Your task to perform on an android device: toggle javascript in the chrome app Image 0: 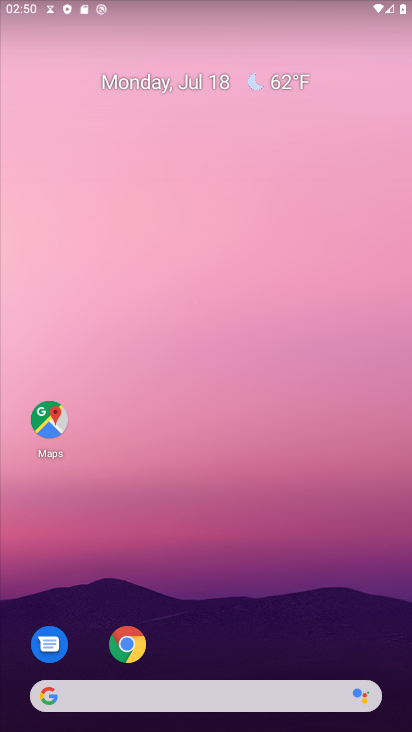
Step 0: drag from (219, 599) to (190, 441)
Your task to perform on an android device: toggle javascript in the chrome app Image 1: 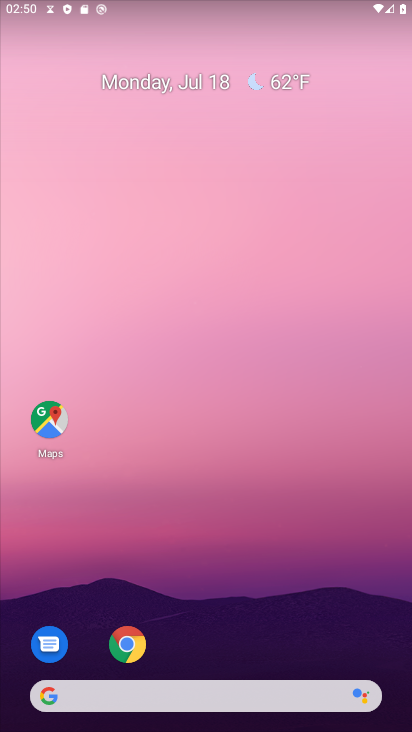
Step 1: drag from (219, 608) to (202, 315)
Your task to perform on an android device: toggle javascript in the chrome app Image 2: 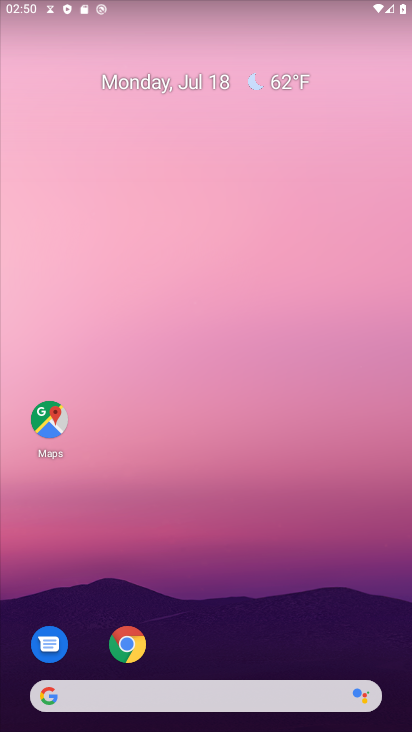
Step 2: drag from (292, 601) to (270, 222)
Your task to perform on an android device: toggle javascript in the chrome app Image 3: 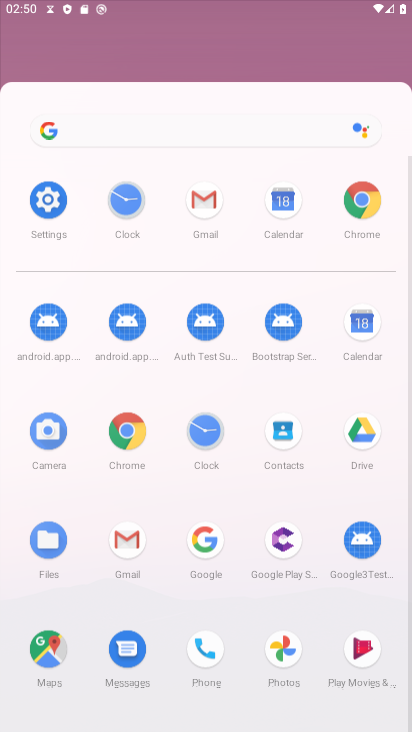
Step 3: drag from (194, 522) to (193, 226)
Your task to perform on an android device: toggle javascript in the chrome app Image 4: 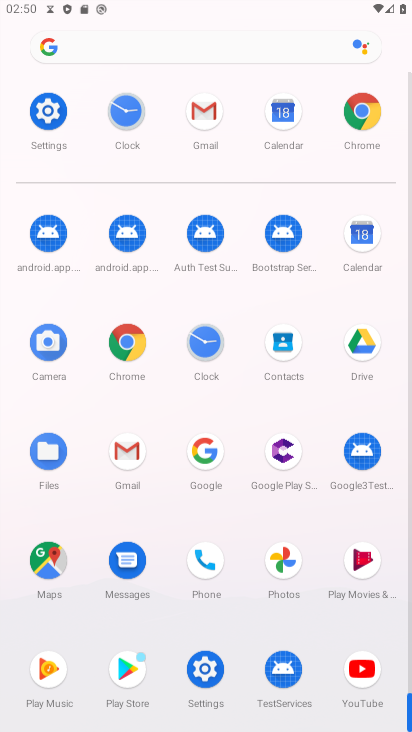
Step 4: drag from (210, 576) to (262, 213)
Your task to perform on an android device: toggle javascript in the chrome app Image 5: 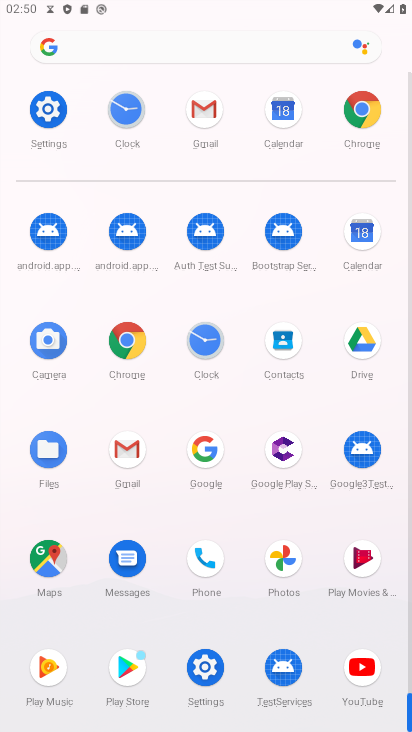
Step 5: click (339, 102)
Your task to perform on an android device: toggle javascript in the chrome app Image 6: 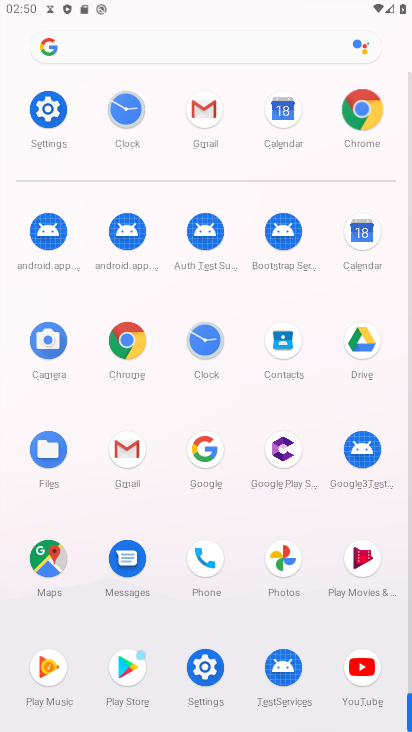
Step 6: click (343, 102)
Your task to perform on an android device: toggle javascript in the chrome app Image 7: 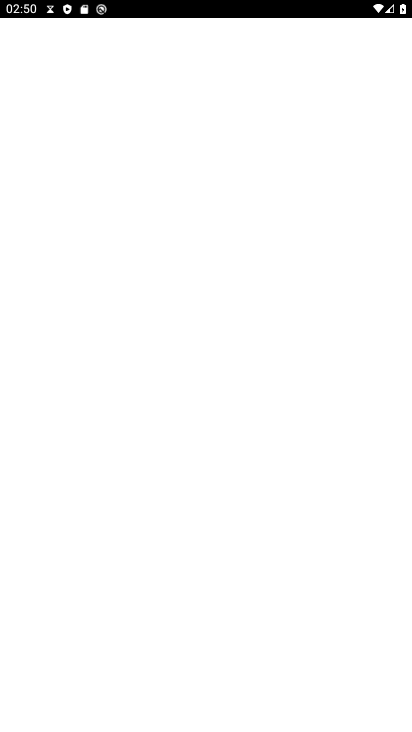
Step 7: click (345, 104)
Your task to perform on an android device: toggle javascript in the chrome app Image 8: 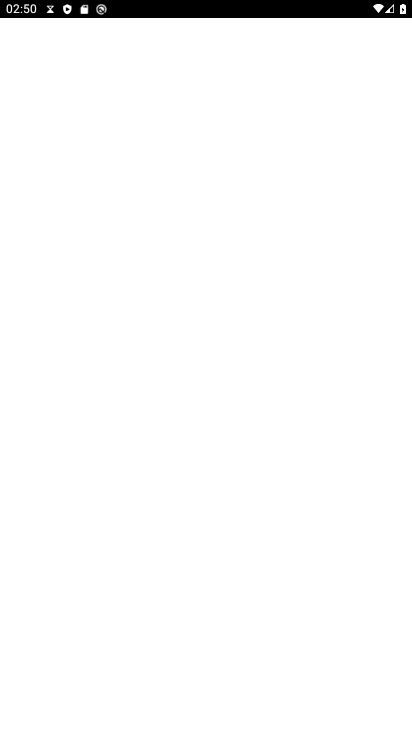
Step 8: click (346, 106)
Your task to perform on an android device: toggle javascript in the chrome app Image 9: 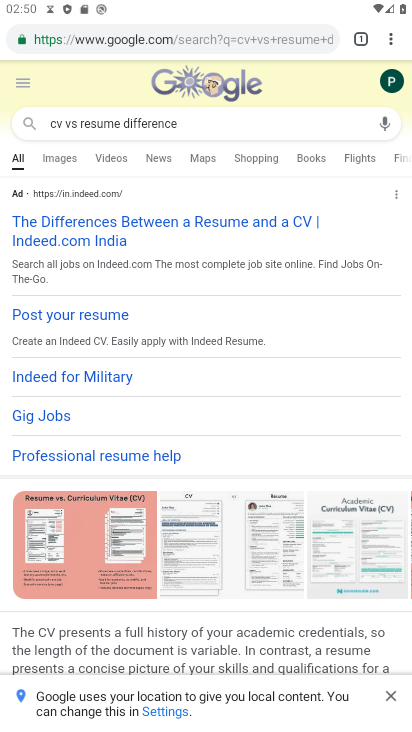
Step 9: drag from (382, 34) to (258, 433)
Your task to perform on an android device: toggle javascript in the chrome app Image 10: 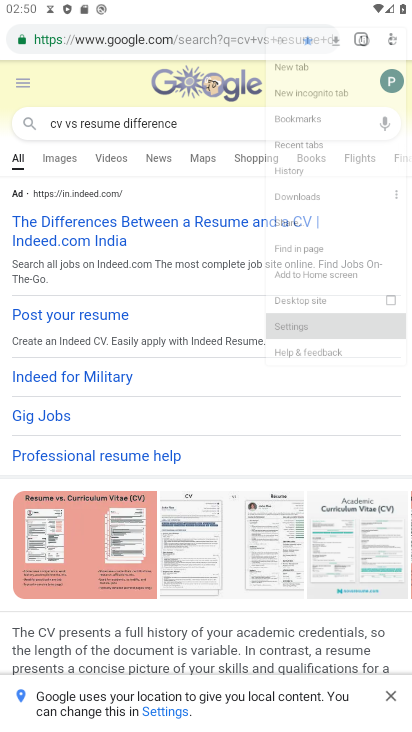
Step 10: click (257, 434)
Your task to perform on an android device: toggle javascript in the chrome app Image 11: 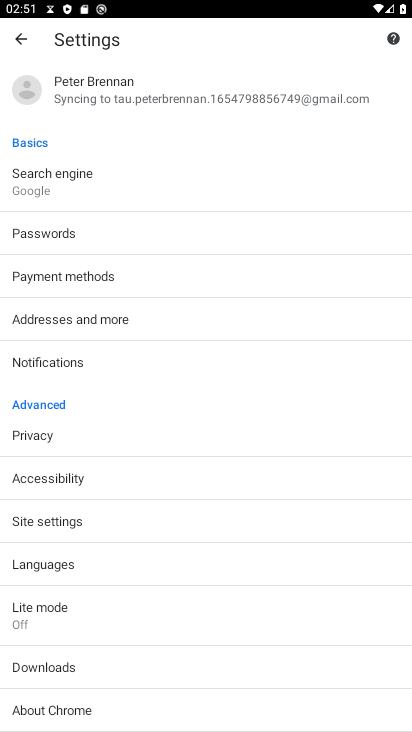
Step 11: drag from (75, 625) to (76, 277)
Your task to perform on an android device: toggle javascript in the chrome app Image 12: 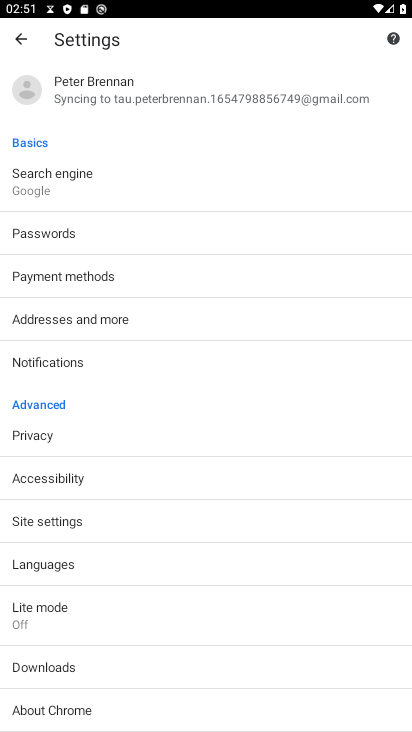
Step 12: drag from (119, 513) to (104, 307)
Your task to perform on an android device: toggle javascript in the chrome app Image 13: 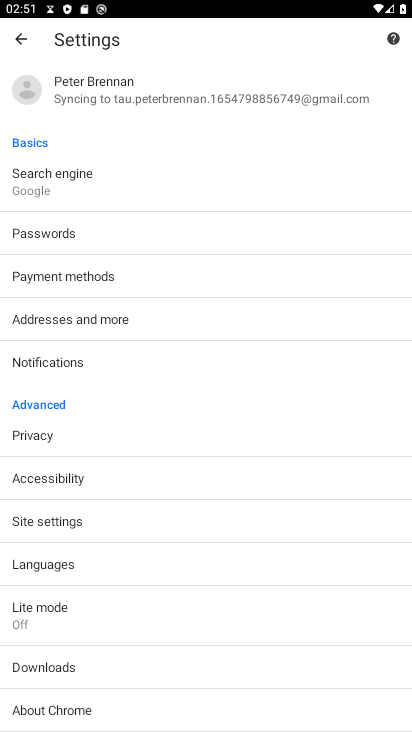
Step 13: drag from (125, 602) to (100, 285)
Your task to perform on an android device: toggle javascript in the chrome app Image 14: 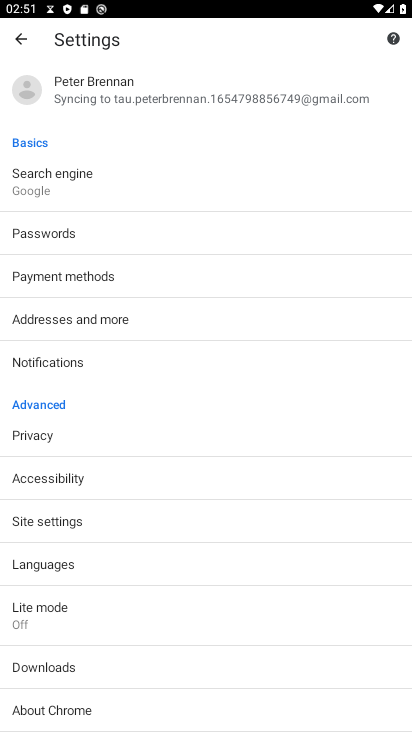
Step 14: drag from (116, 557) to (71, 405)
Your task to perform on an android device: toggle javascript in the chrome app Image 15: 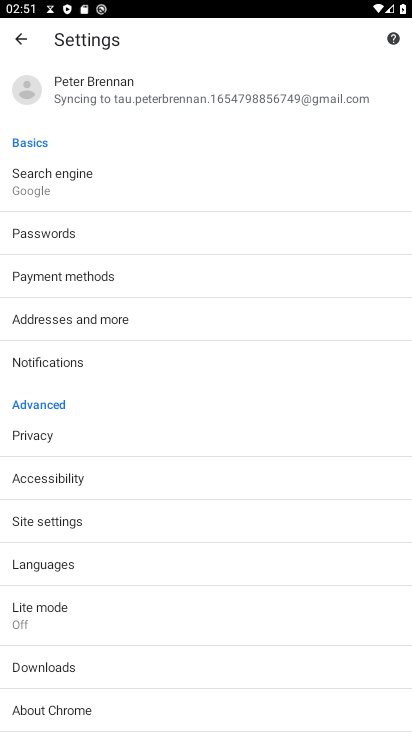
Step 15: click (36, 500)
Your task to perform on an android device: toggle javascript in the chrome app Image 16: 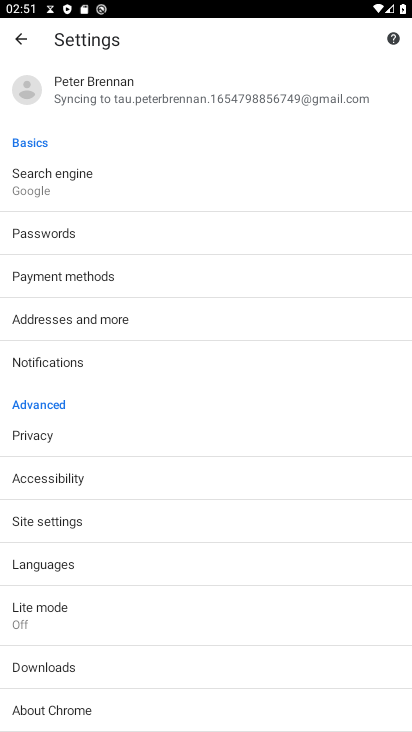
Step 16: click (36, 512)
Your task to perform on an android device: toggle javascript in the chrome app Image 17: 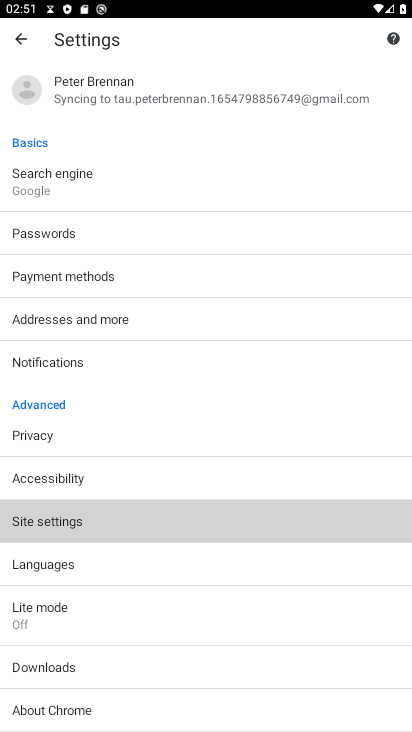
Step 17: click (39, 518)
Your task to perform on an android device: toggle javascript in the chrome app Image 18: 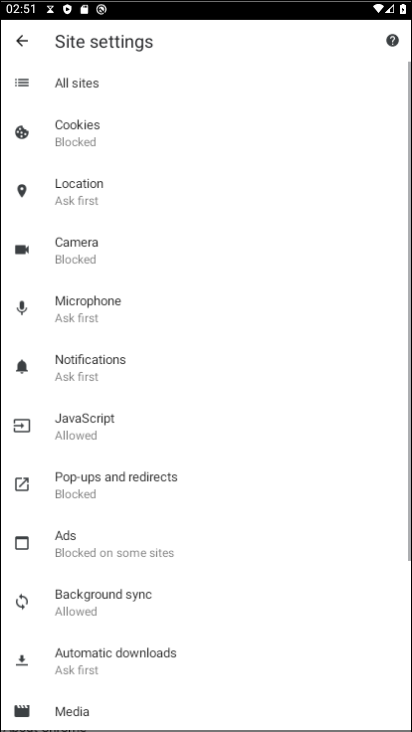
Step 18: click (39, 519)
Your task to perform on an android device: toggle javascript in the chrome app Image 19: 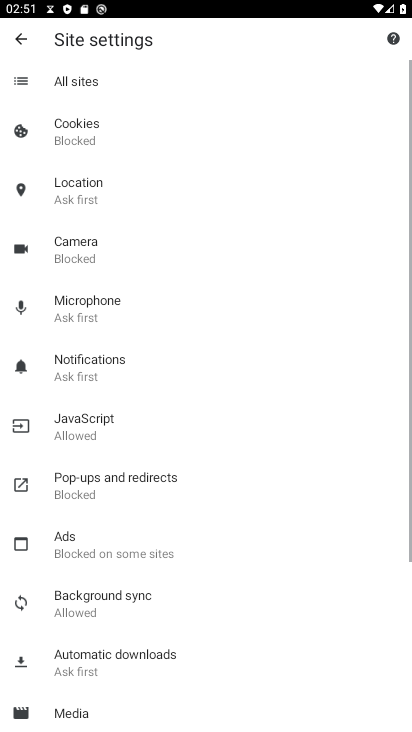
Step 19: click (39, 520)
Your task to perform on an android device: toggle javascript in the chrome app Image 20: 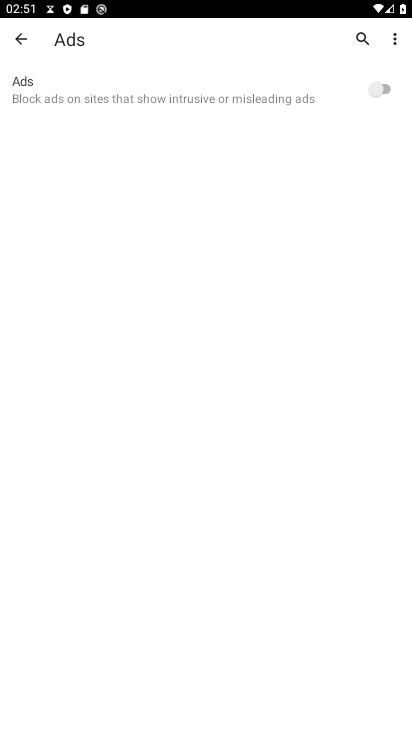
Step 20: click (25, 41)
Your task to perform on an android device: toggle javascript in the chrome app Image 21: 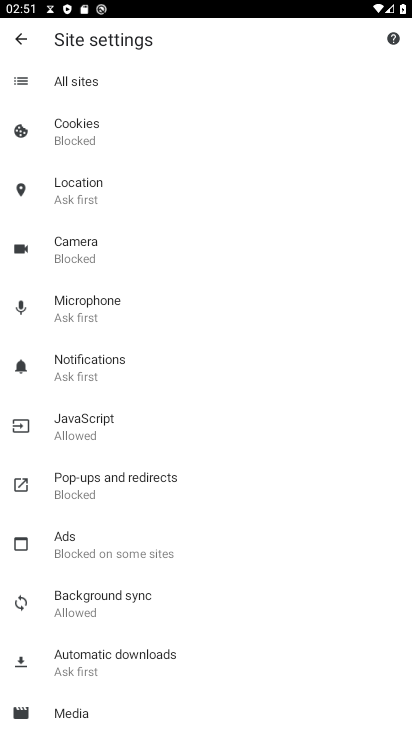
Step 21: click (80, 423)
Your task to perform on an android device: toggle javascript in the chrome app Image 22: 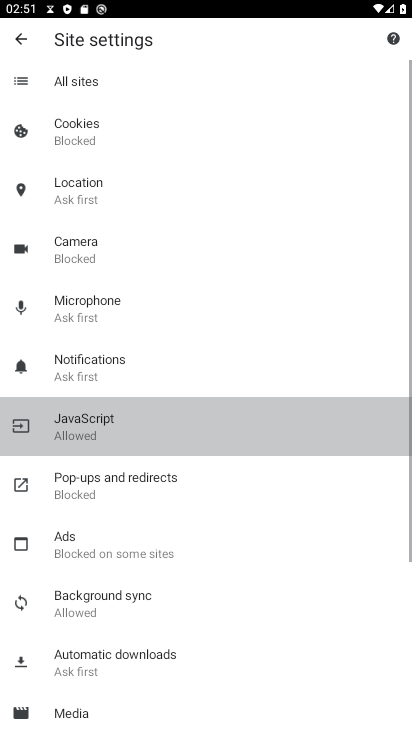
Step 22: click (80, 418)
Your task to perform on an android device: toggle javascript in the chrome app Image 23: 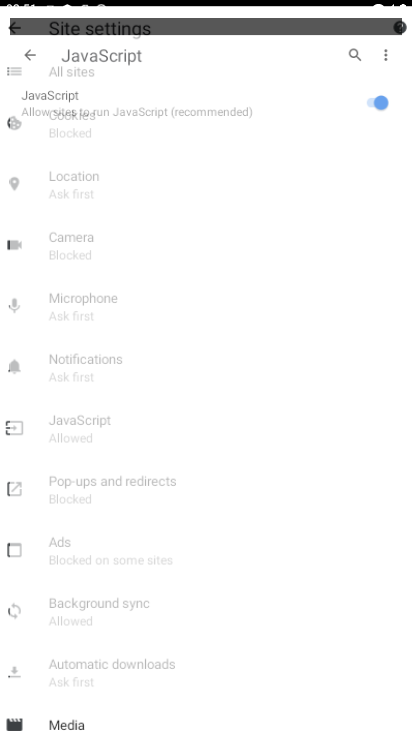
Step 23: click (80, 418)
Your task to perform on an android device: toggle javascript in the chrome app Image 24: 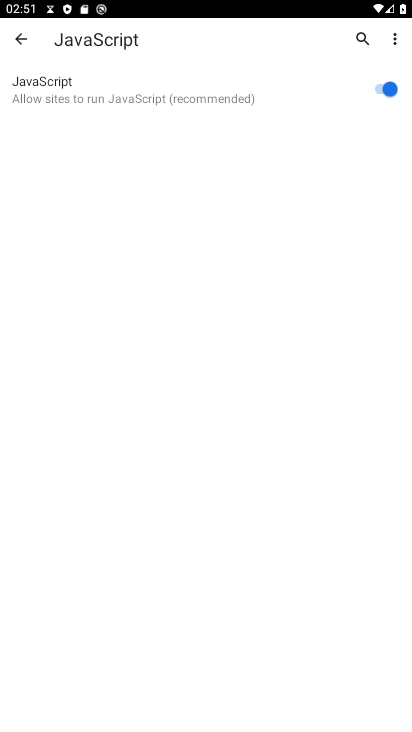
Step 24: click (80, 418)
Your task to perform on an android device: toggle javascript in the chrome app Image 25: 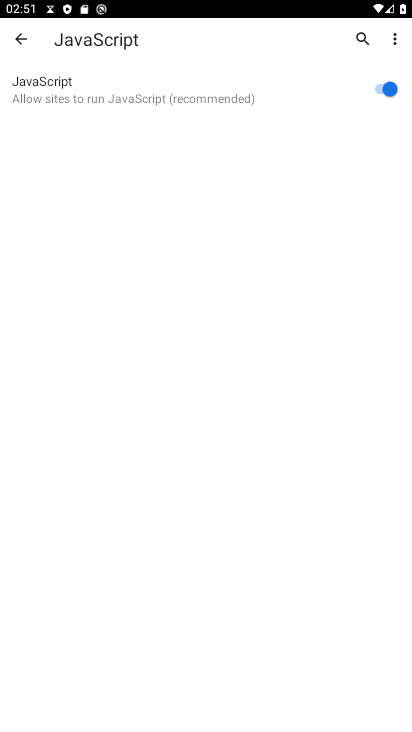
Step 25: click (385, 87)
Your task to perform on an android device: toggle javascript in the chrome app Image 26: 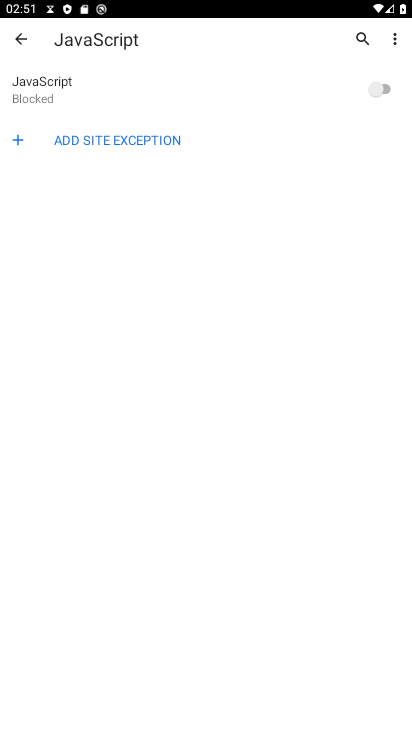
Step 26: task complete